Your task to perform on an android device: Play the latest video from the New York Times Image 0: 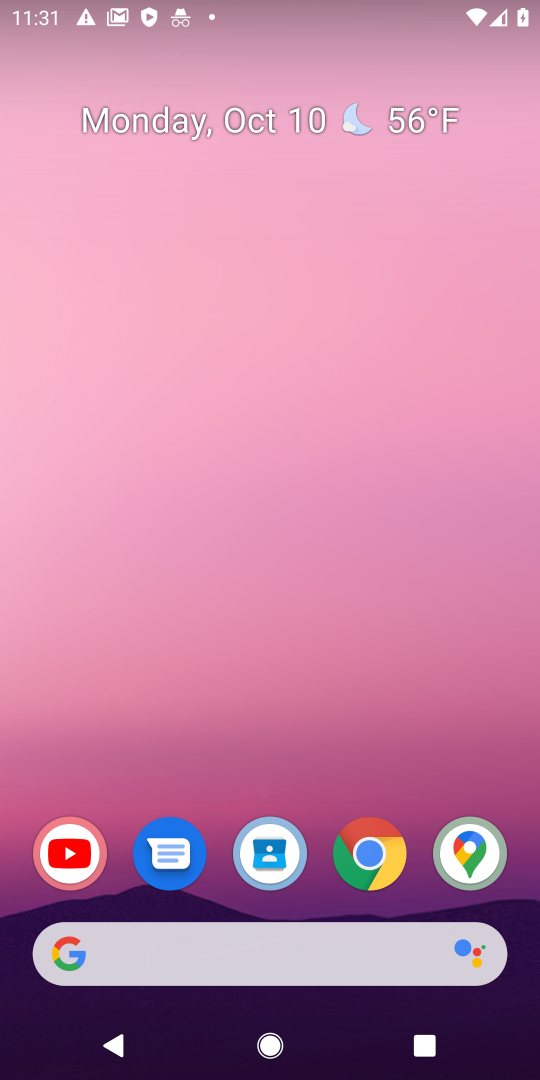
Step 0: click (296, 958)
Your task to perform on an android device: Play the latest video from the New York Times Image 1: 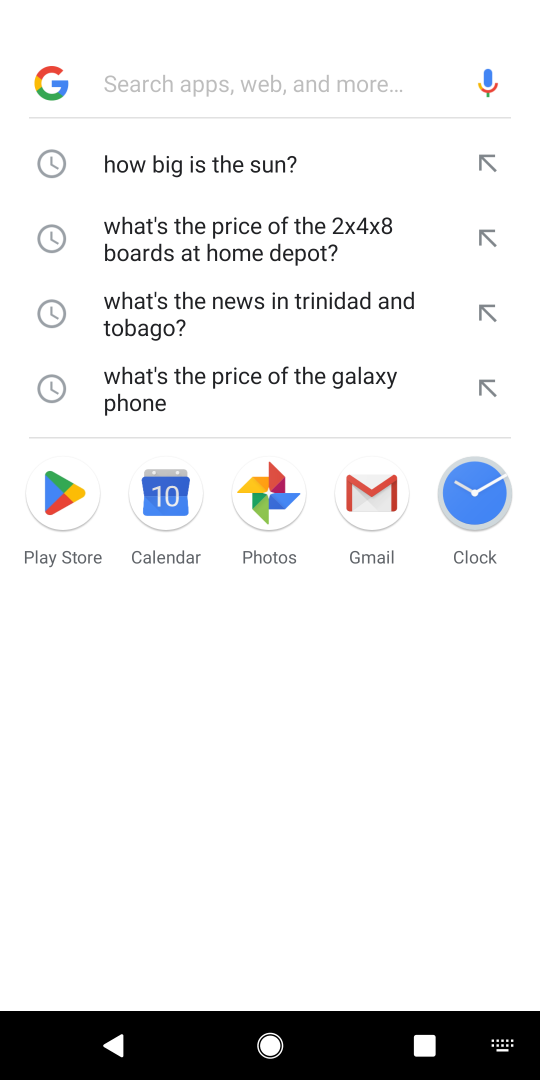
Step 1: type "Play the latest video from the New York Times"
Your task to perform on an android device: Play the latest video from the New York Times Image 2: 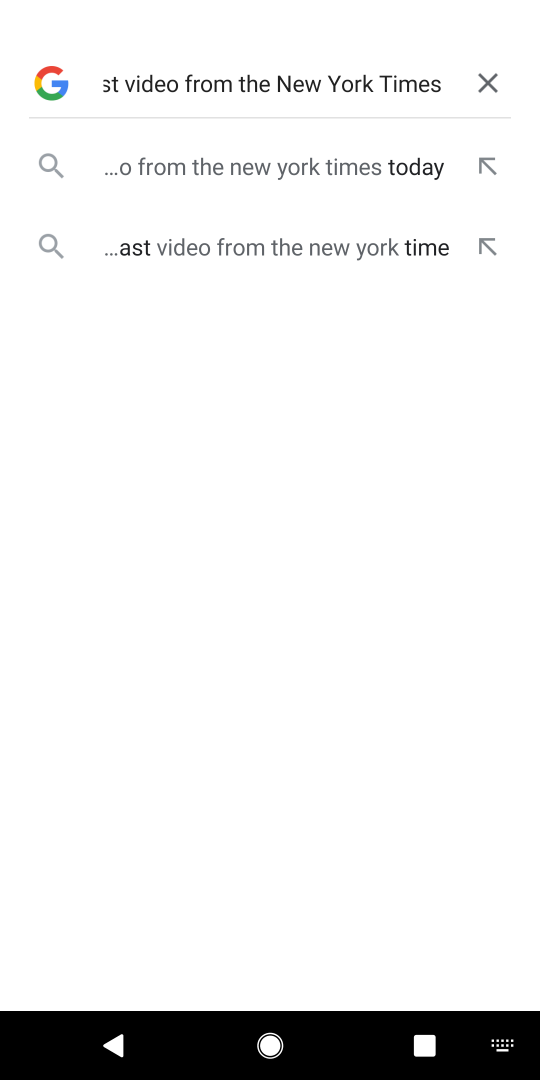
Step 2: press enter
Your task to perform on an android device: Play the latest video from the New York Times Image 3: 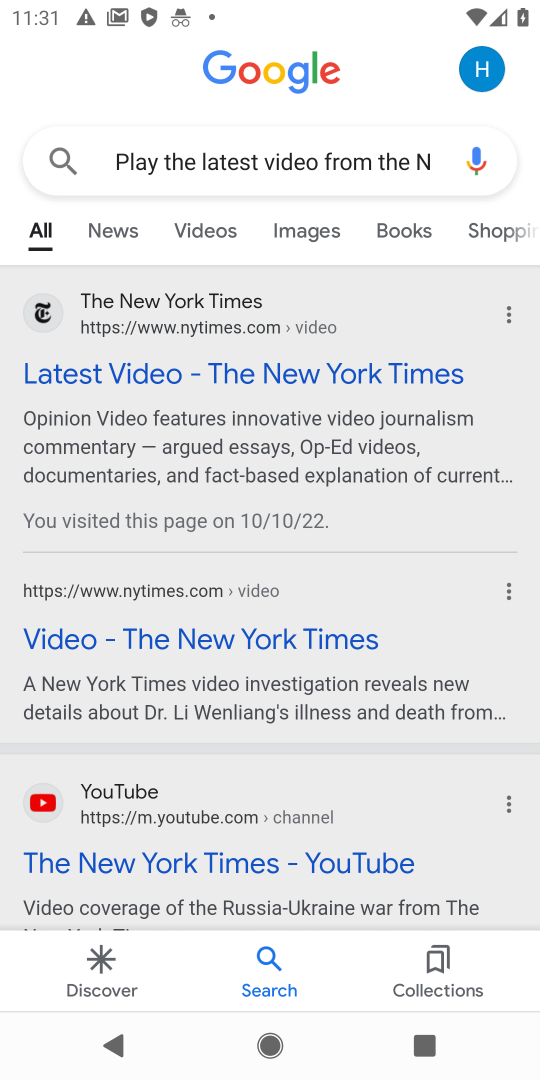
Step 3: click (246, 376)
Your task to perform on an android device: Play the latest video from the New York Times Image 4: 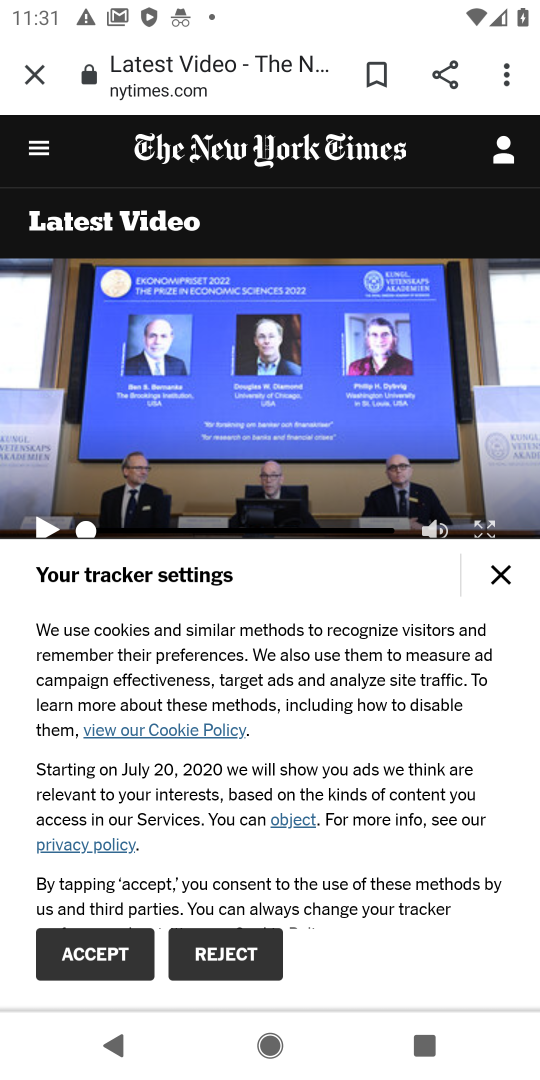
Step 4: click (107, 955)
Your task to perform on an android device: Play the latest video from the New York Times Image 5: 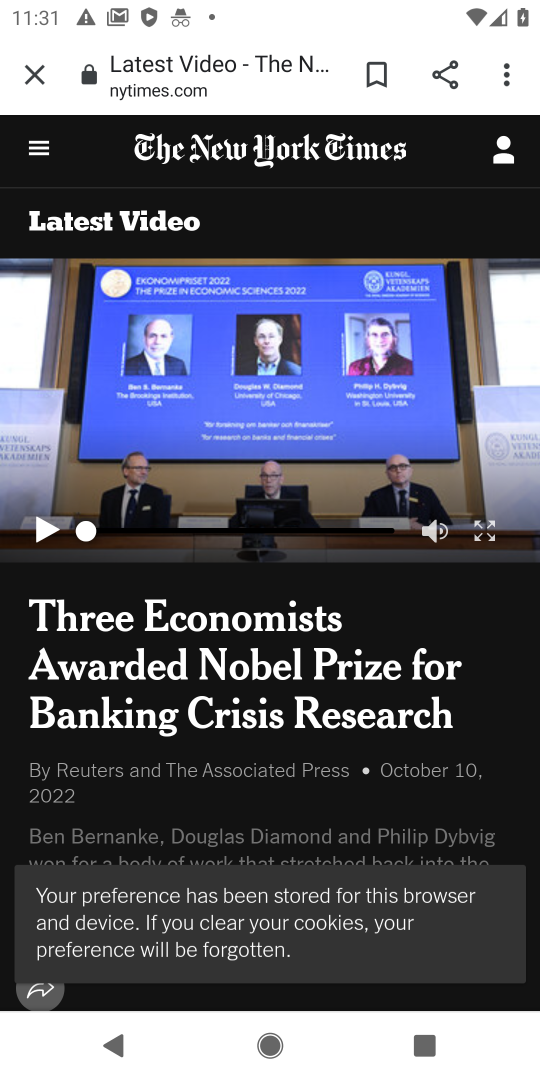
Step 5: click (45, 528)
Your task to perform on an android device: Play the latest video from the New York Times Image 6: 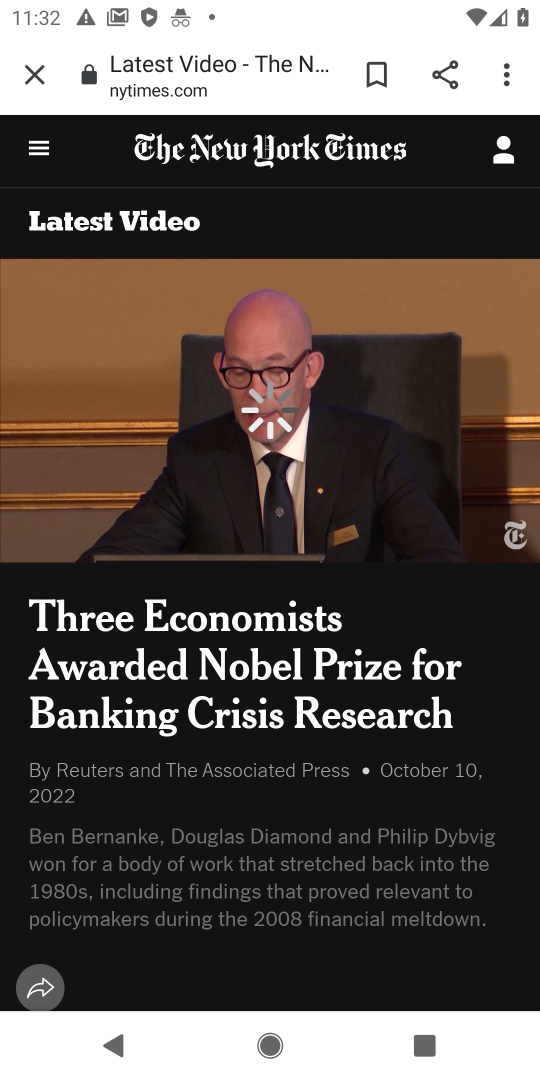
Step 6: task complete